Your task to perform on an android device: check data usage Image 0: 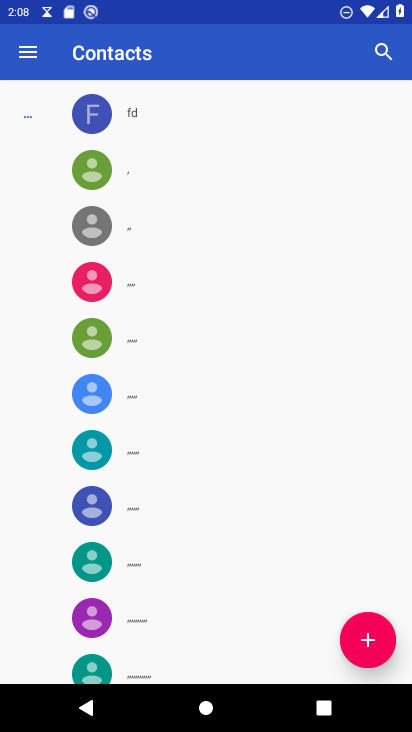
Step 0: press home button
Your task to perform on an android device: check data usage Image 1: 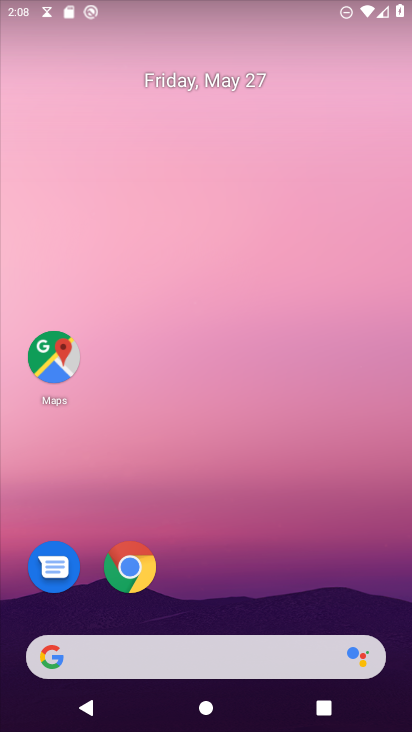
Step 1: drag from (242, 606) to (199, 94)
Your task to perform on an android device: check data usage Image 2: 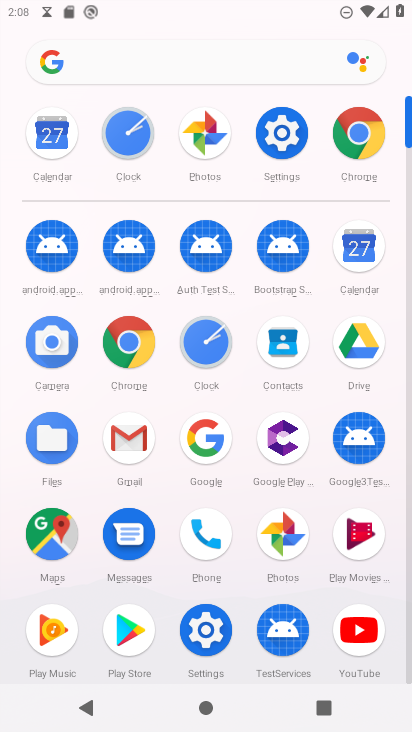
Step 2: click (269, 122)
Your task to perform on an android device: check data usage Image 3: 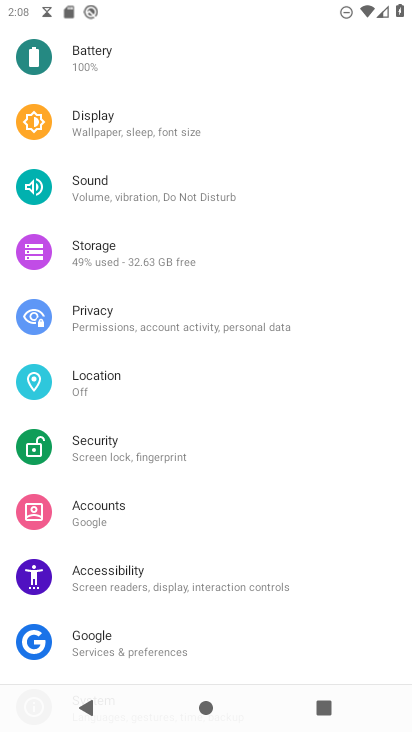
Step 3: drag from (185, 137) to (183, 678)
Your task to perform on an android device: check data usage Image 4: 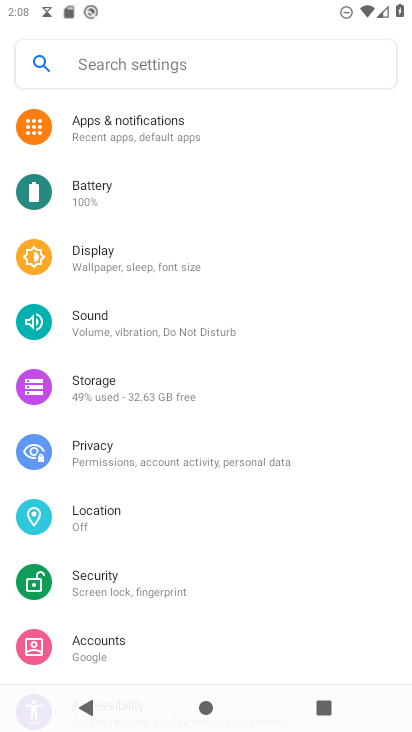
Step 4: drag from (139, 170) to (156, 568)
Your task to perform on an android device: check data usage Image 5: 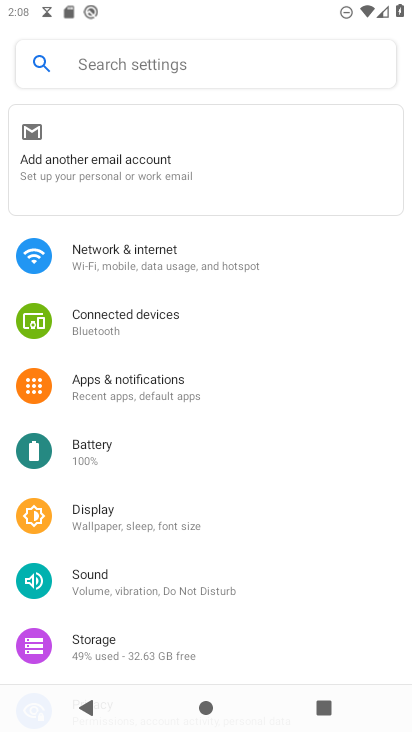
Step 5: click (157, 252)
Your task to perform on an android device: check data usage Image 6: 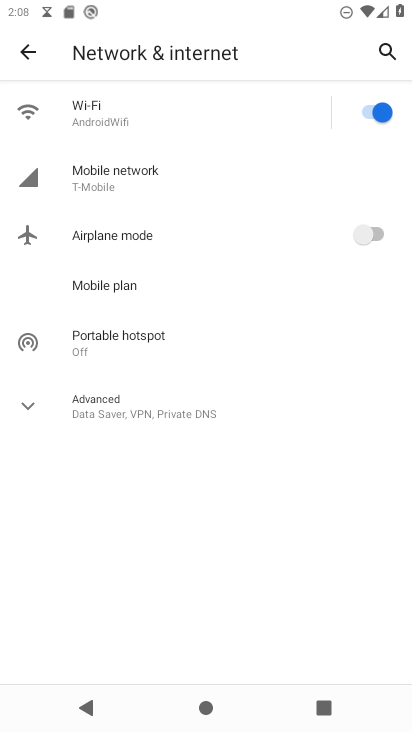
Step 6: click (125, 114)
Your task to perform on an android device: check data usage Image 7: 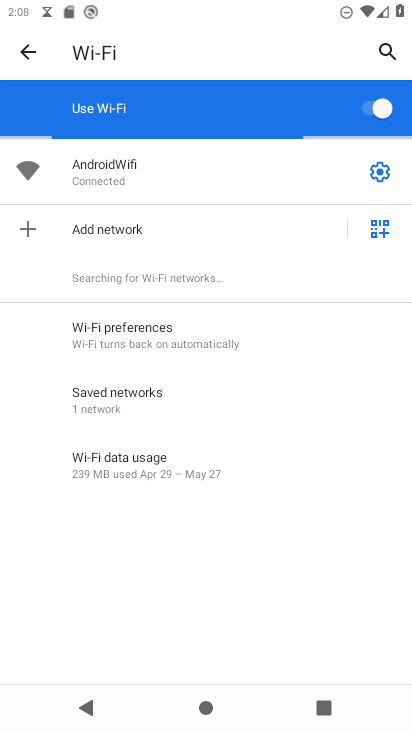
Step 7: click (174, 465)
Your task to perform on an android device: check data usage Image 8: 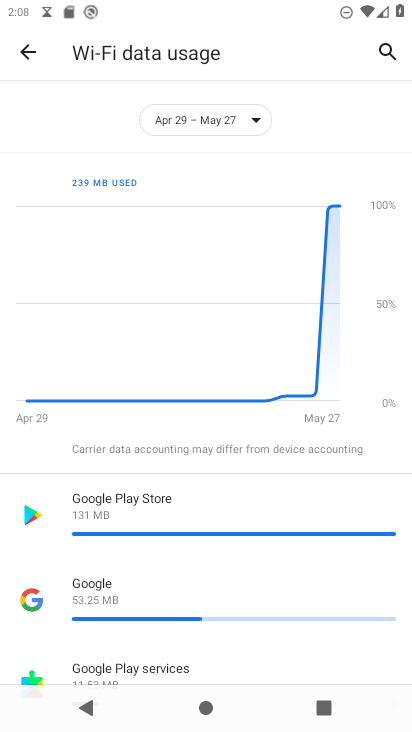
Step 8: task complete